Your task to perform on an android device: create a new album in the google photos Image 0: 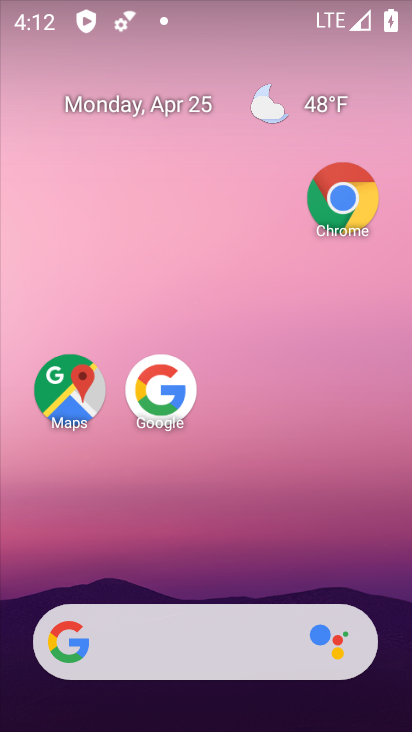
Step 0: drag from (136, 633) to (327, 52)
Your task to perform on an android device: create a new album in the google photos Image 1: 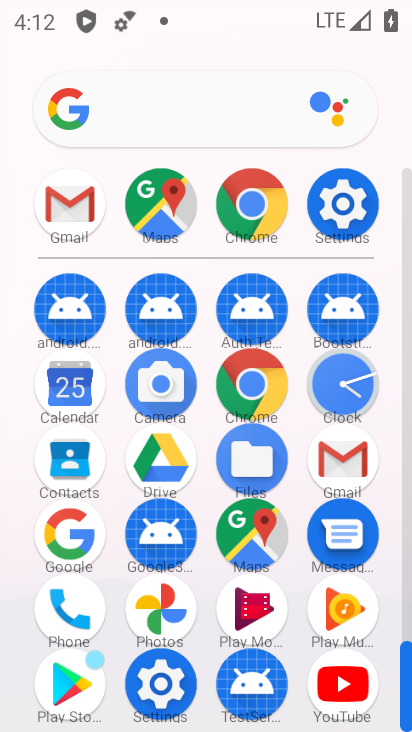
Step 1: drag from (222, 596) to (388, 205)
Your task to perform on an android device: create a new album in the google photos Image 2: 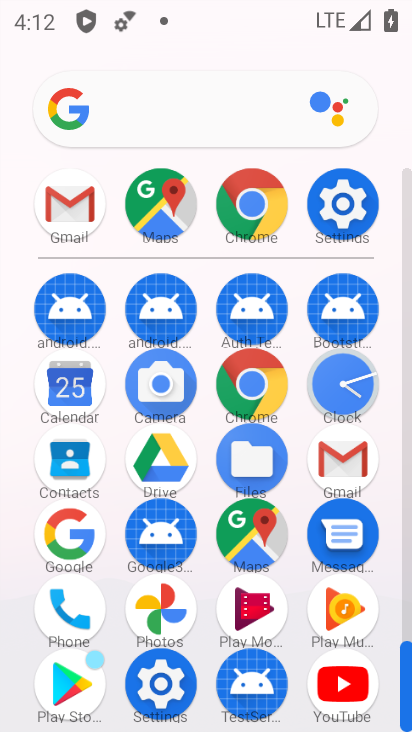
Step 2: click (165, 619)
Your task to perform on an android device: create a new album in the google photos Image 3: 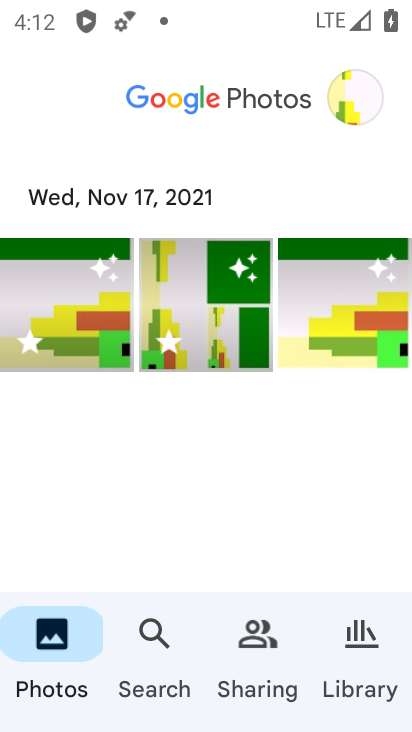
Step 3: click (366, 628)
Your task to perform on an android device: create a new album in the google photos Image 4: 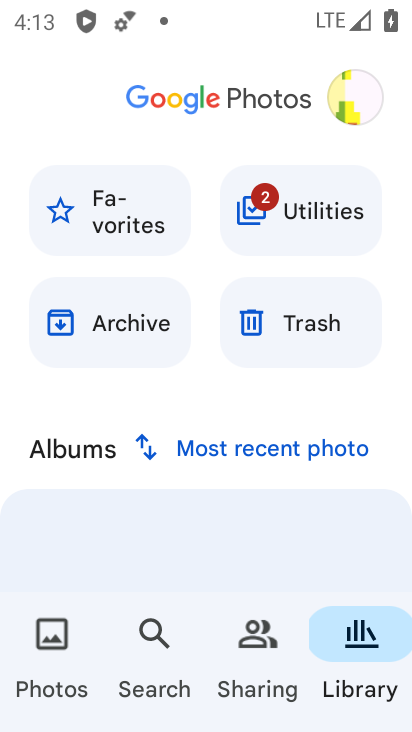
Step 4: click (77, 447)
Your task to perform on an android device: create a new album in the google photos Image 5: 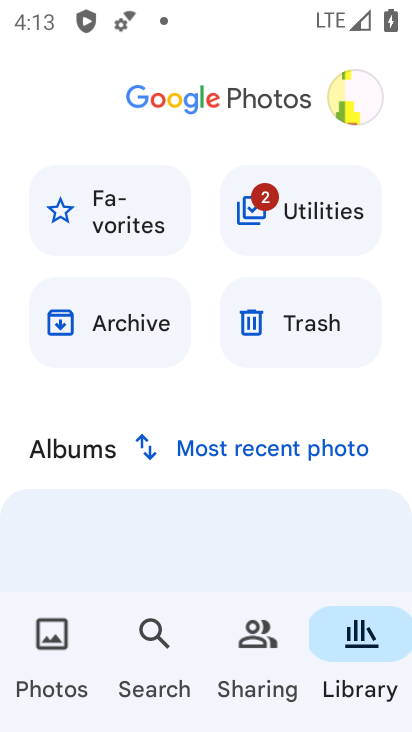
Step 5: drag from (169, 550) to (377, 85)
Your task to perform on an android device: create a new album in the google photos Image 6: 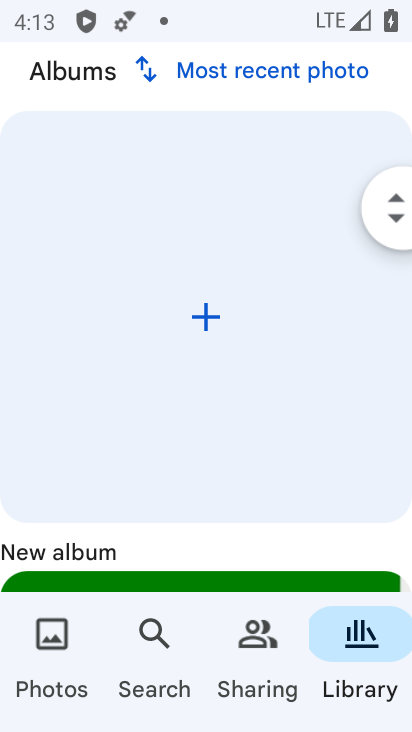
Step 6: click (202, 310)
Your task to perform on an android device: create a new album in the google photos Image 7: 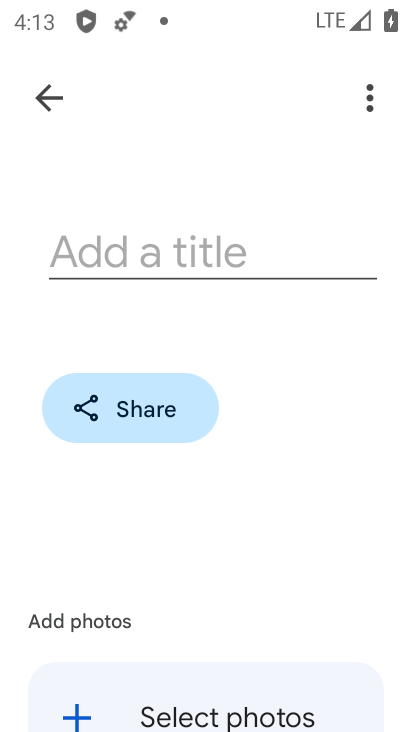
Step 7: drag from (187, 553) to (355, 92)
Your task to perform on an android device: create a new album in the google photos Image 8: 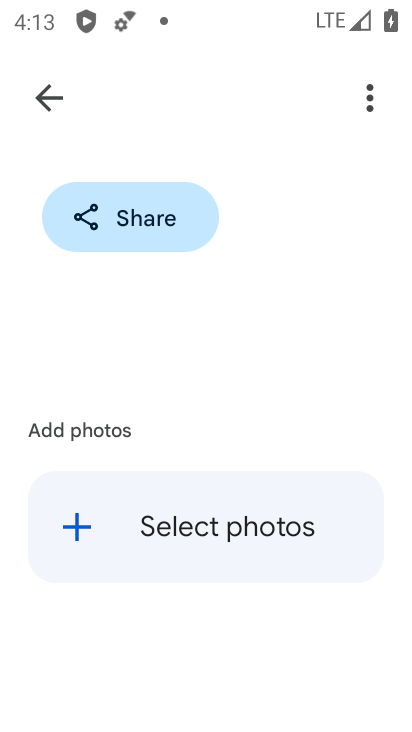
Step 8: click (192, 528)
Your task to perform on an android device: create a new album in the google photos Image 9: 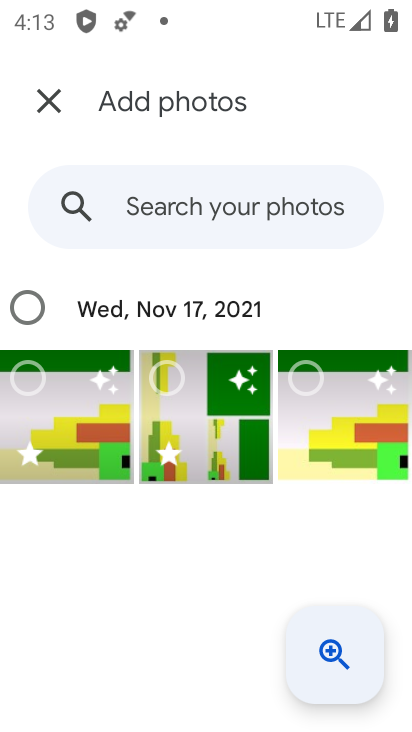
Step 9: click (66, 383)
Your task to perform on an android device: create a new album in the google photos Image 10: 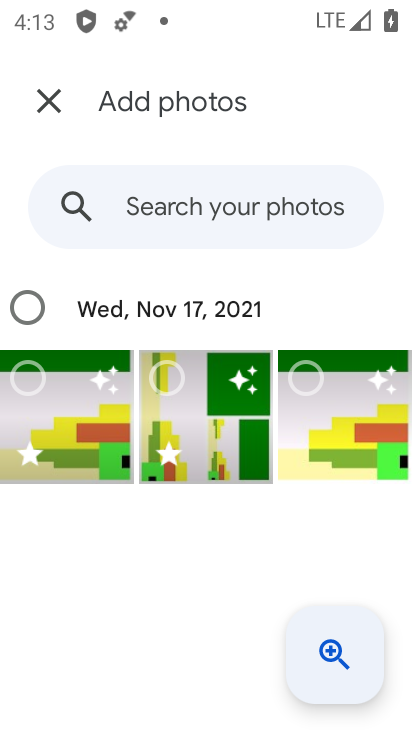
Step 10: click (177, 401)
Your task to perform on an android device: create a new album in the google photos Image 11: 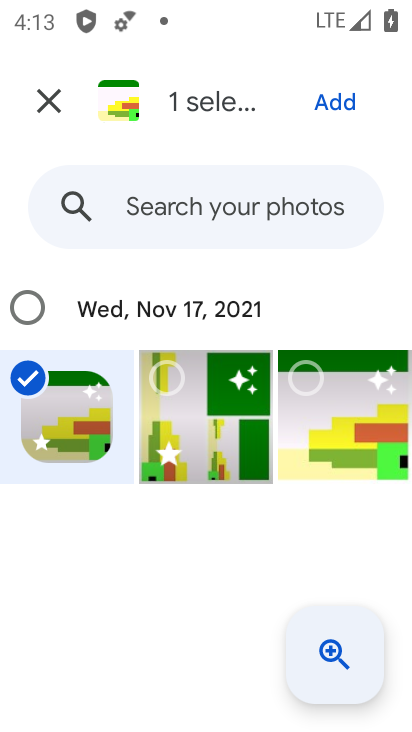
Step 11: click (338, 389)
Your task to perform on an android device: create a new album in the google photos Image 12: 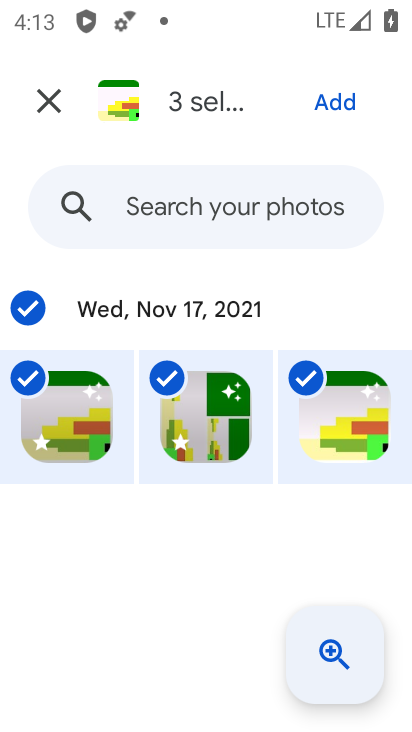
Step 12: click (344, 99)
Your task to perform on an android device: create a new album in the google photos Image 13: 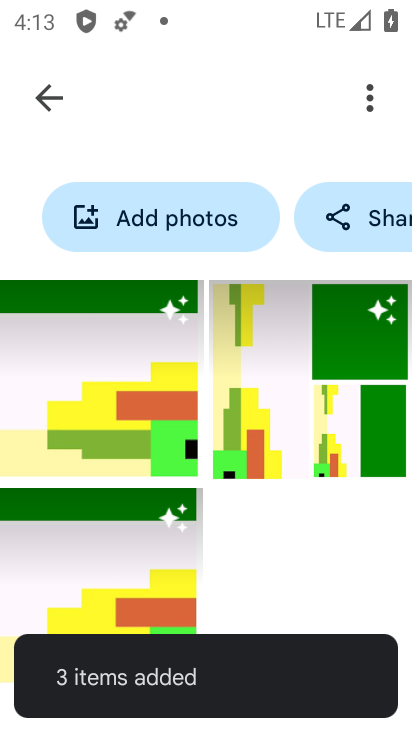
Step 13: task complete